Your task to perform on an android device: View the shopping cart on walmart.com. Image 0: 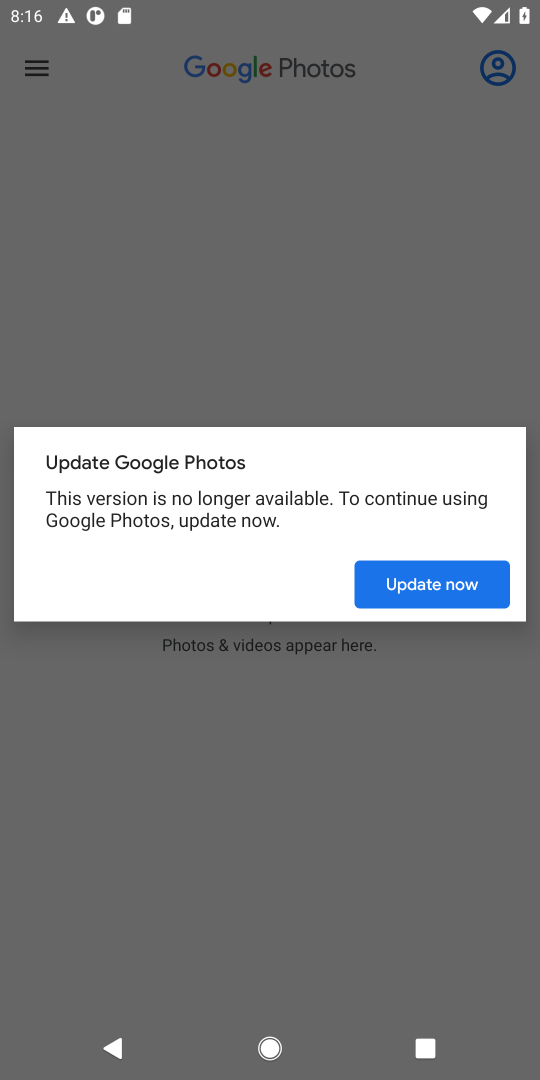
Step 0: press home button
Your task to perform on an android device: View the shopping cart on walmart.com. Image 1: 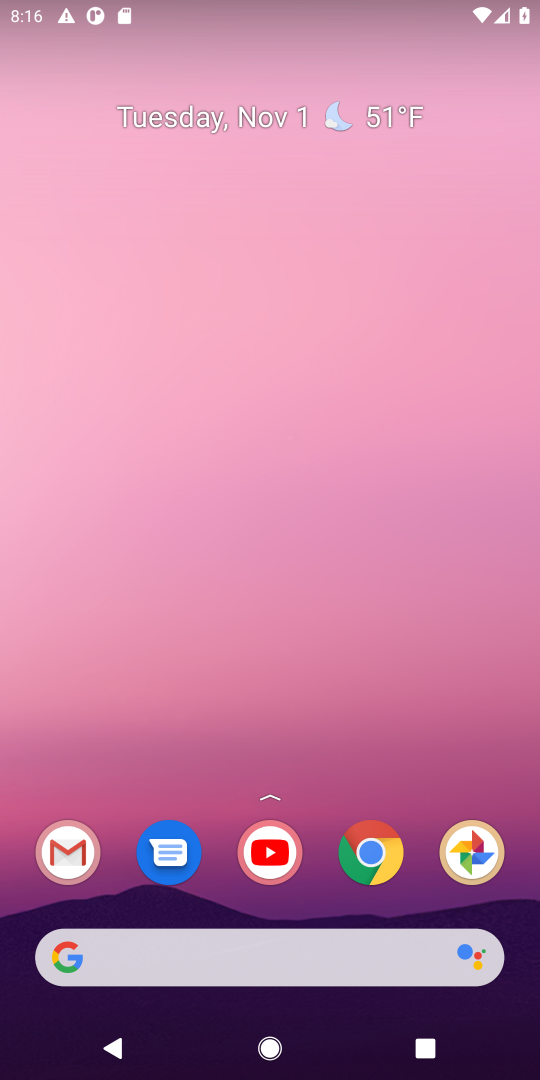
Step 1: drag from (168, 936) to (226, 161)
Your task to perform on an android device: View the shopping cart on walmart.com. Image 2: 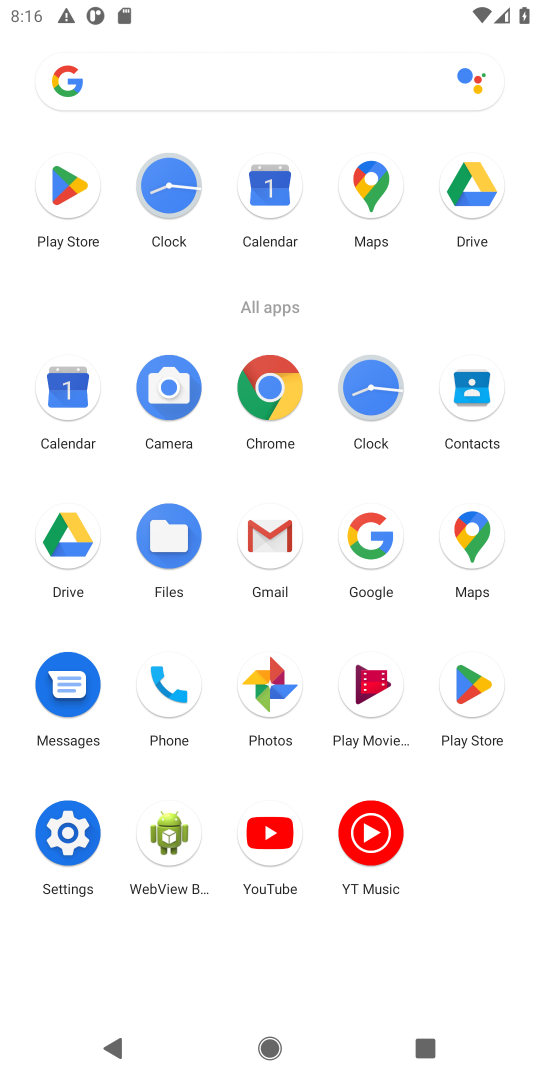
Step 2: click (372, 535)
Your task to perform on an android device: View the shopping cart on walmart.com. Image 3: 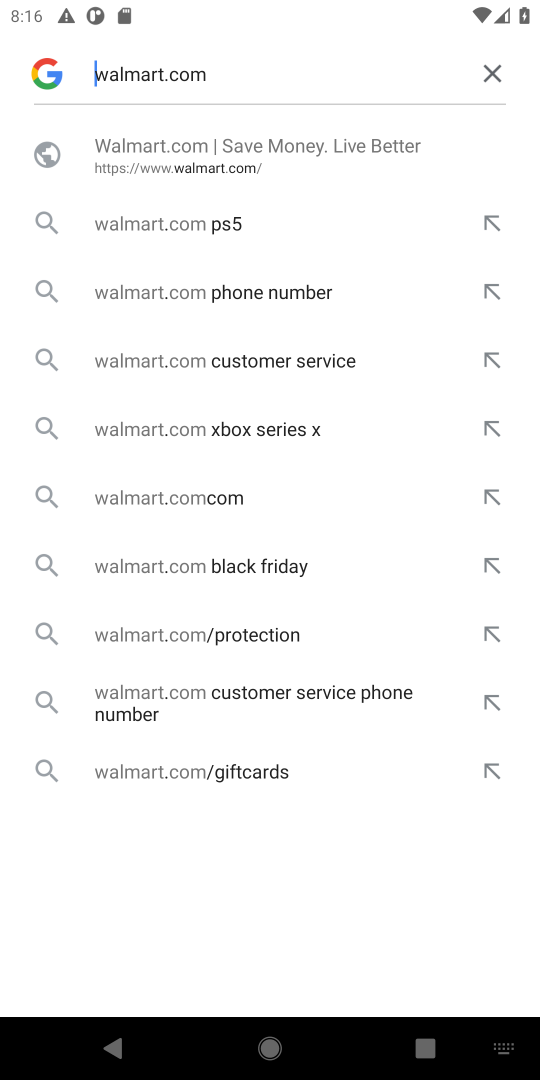
Step 3: click (469, 80)
Your task to perform on an android device: View the shopping cart on walmart.com. Image 4: 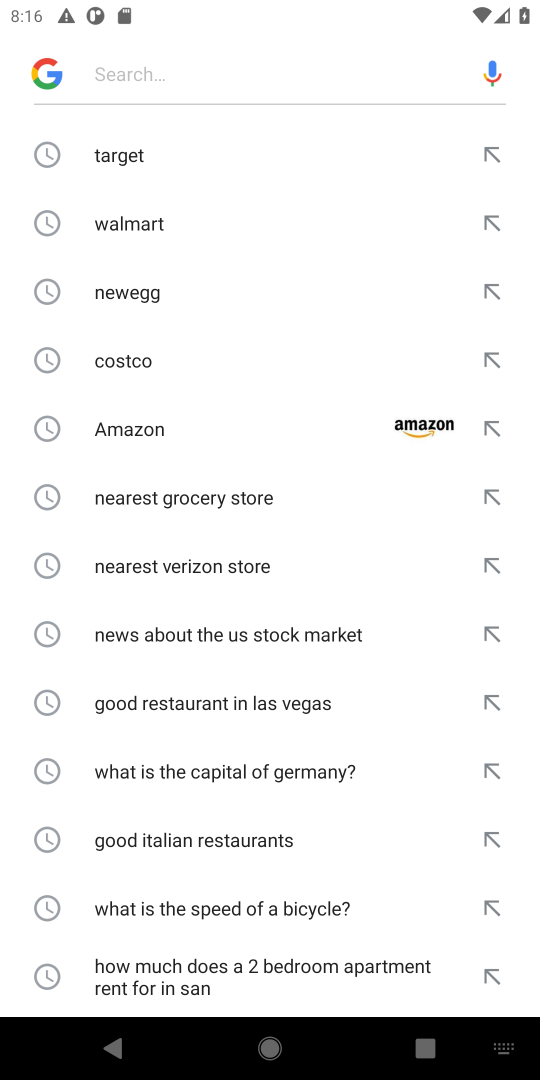
Step 4: type "walmart.com."
Your task to perform on an android device: View the shopping cart on walmart.com. Image 5: 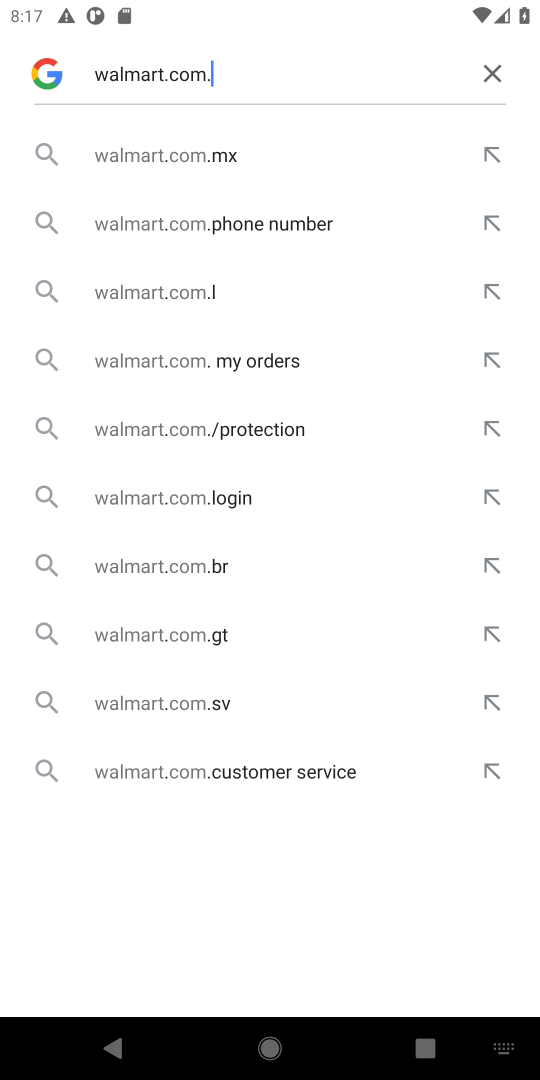
Step 5: click (496, 71)
Your task to perform on an android device: View the shopping cart on walmart.com. Image 6: 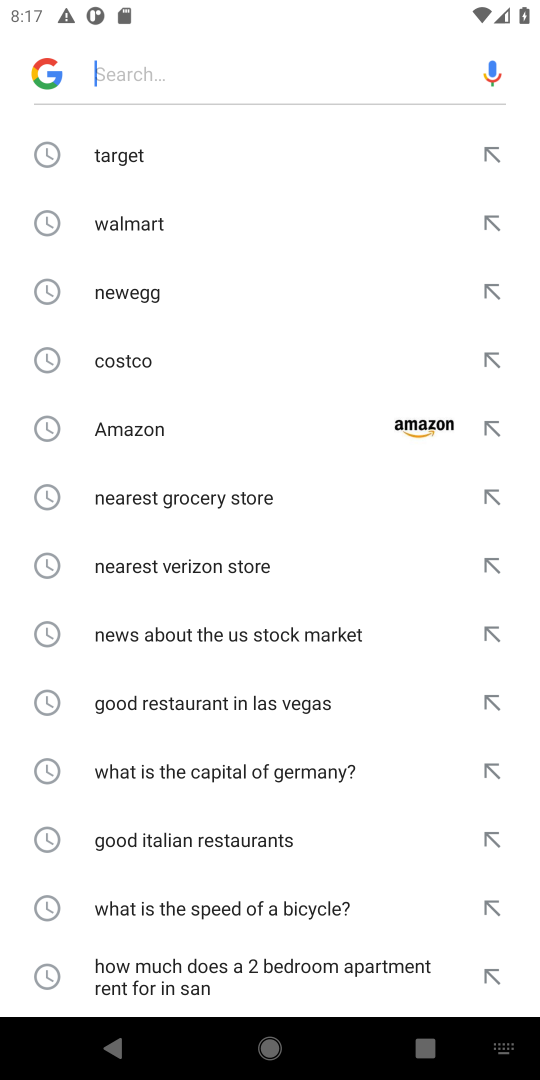
Step 6: type "walmart.com"
Your task to perform on an android device: View the shopping cart on walmart.com. Image 7: 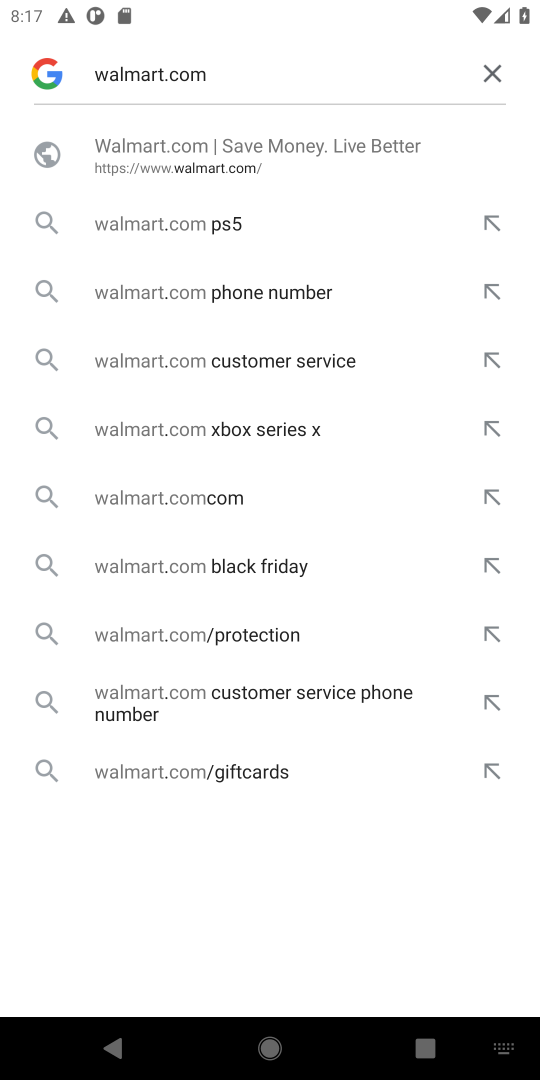
Step 7: click (241, 143)
Your task to perform on an android device: View the shopping cart on walmart.com. Image 8: 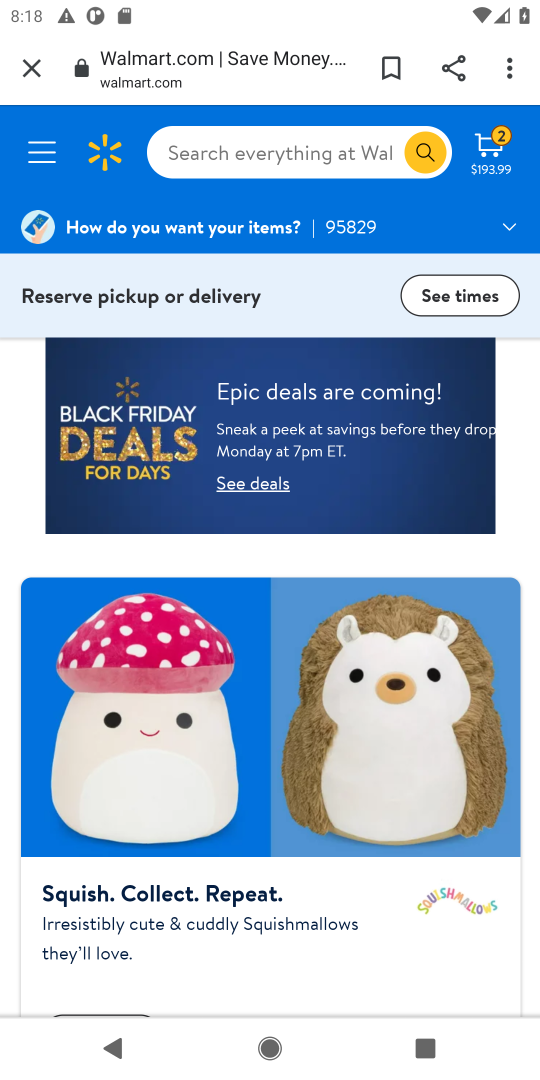
Step 8: click (484, 151)
Your task to perform on an android device: View the shopping cart on walmart.com. Image 9: 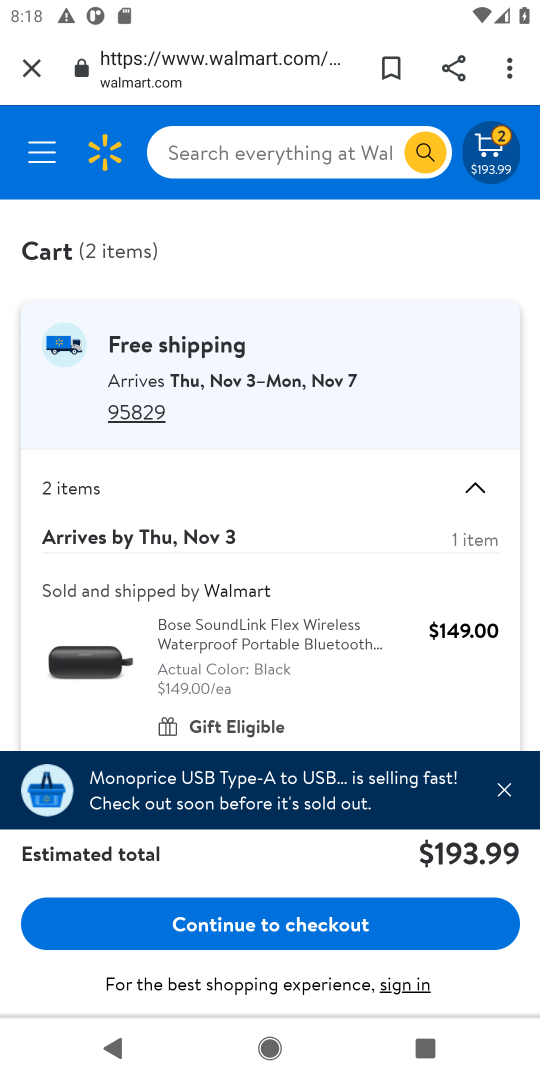
Step 9: task complete